Your task to perform on an android device: toggle data saver in the chrome app Image 0: 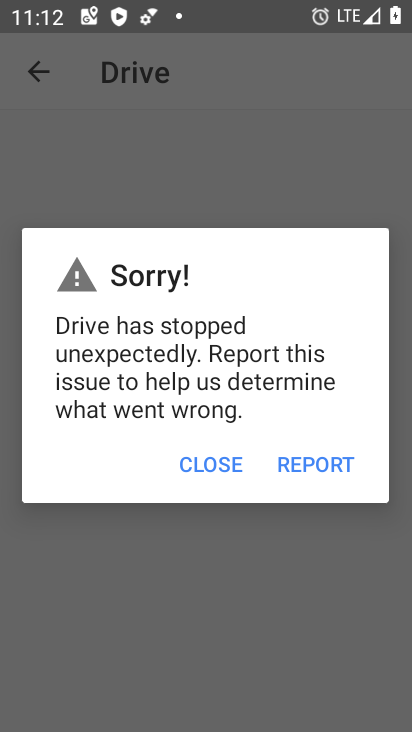
Step 0: press home button
Your task to perform on an android device: toggle data saver in the chrome app Image 1: 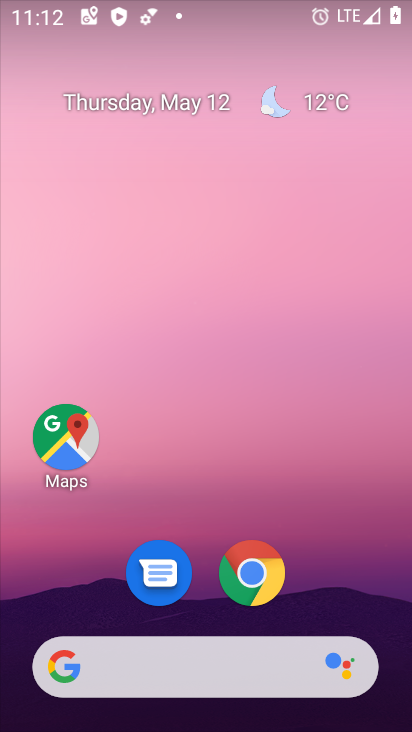
Step 1: click (252, 548)
Your task to perform on an android device: toggle data saver in the chrome app Image 2: 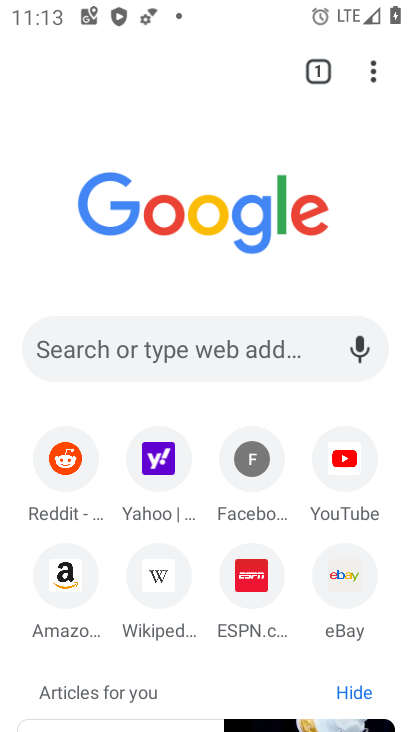
Step 2: click (383, 68)
Your task to perform on an android device: toggle data saver in the chrome app Image 3: 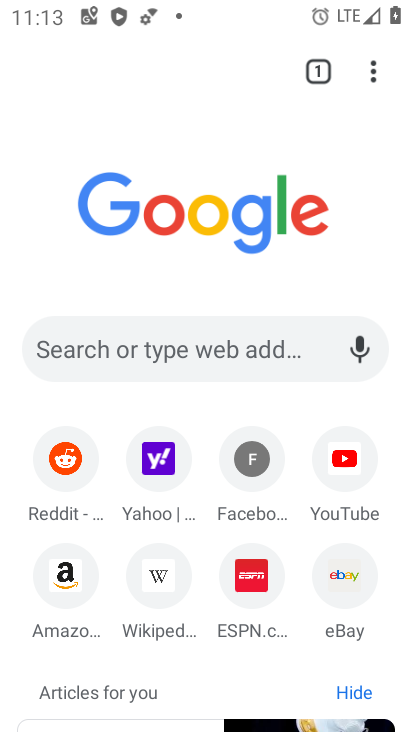
Step 3: click (374, 72)
Your task to perform on an android device: toggle data saver in the chrome app Image 4: 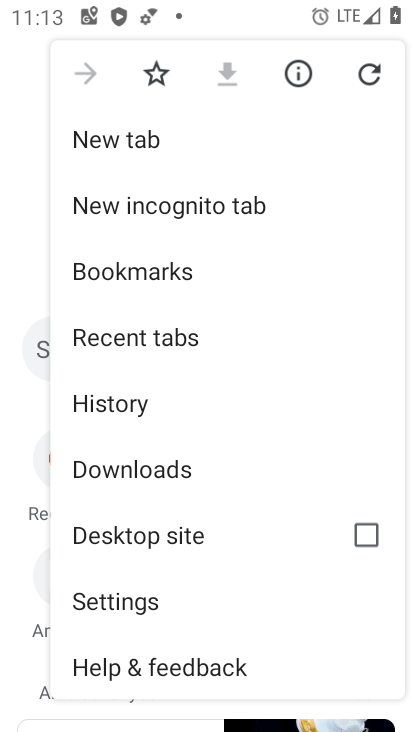
Step 4: click (188, 610)
Your task to perform on an android device: toggle data saver in the chrome app Image 5: 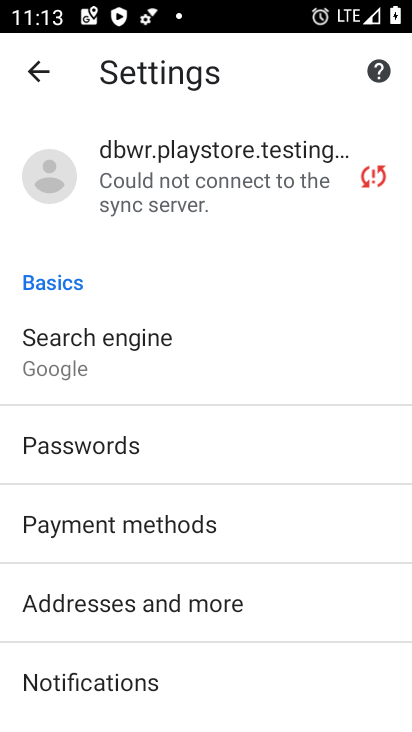
Step 5: drag from (212, 673) to (232, 152)
Your task to perform on an android device: toggle data saver in the chrome app Image 6: 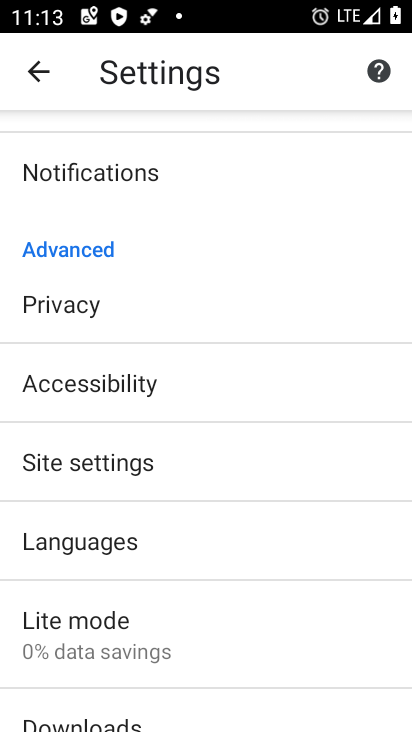
Step 6: click (79, 634)
Your task to perform on an android device: toggle data saver in the chrome app Image 7: 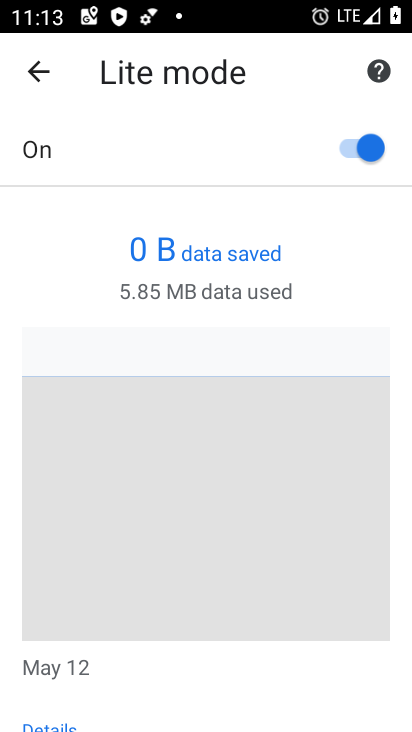
Step 7: click (370, 145)
Your task to perform on an android device: toggle data saver in the chrome app Image 8: 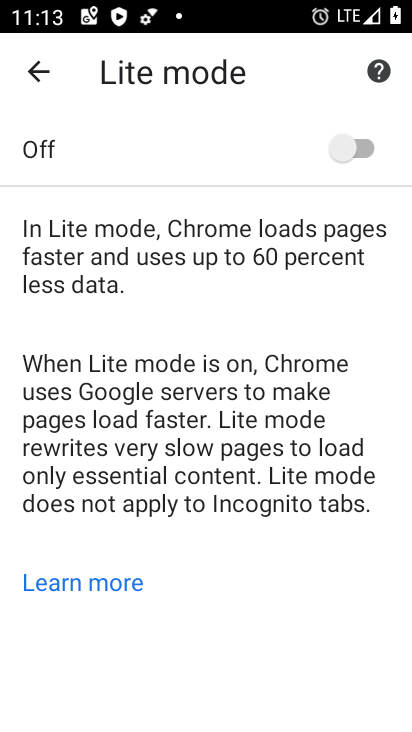
Step 8: task complete